Your task to perform on an android device: snooze an email in the gmail app Image 0: 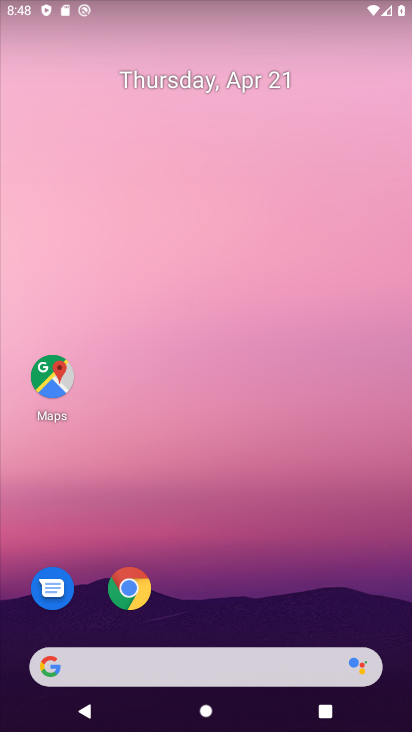
Step 0: drag from (275, 407) to (236, 42)
Your task to perform on an android device: snooze an email in the gmail app Image 1: 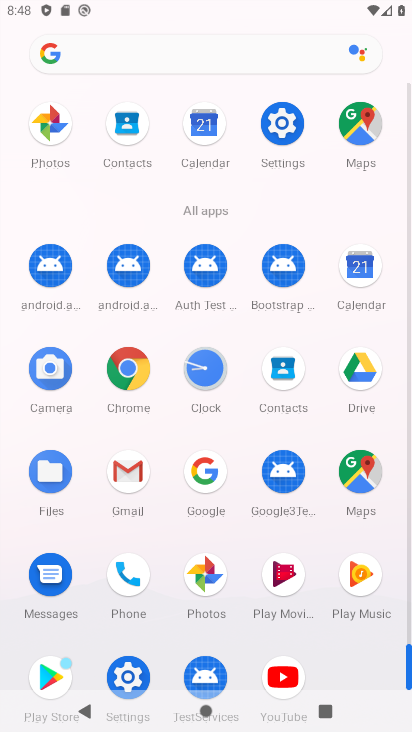
Step 1: drag from (16, 519) to (32, 253)
Your task to perform on an android device: snooze an email in the gmail app Image 2: 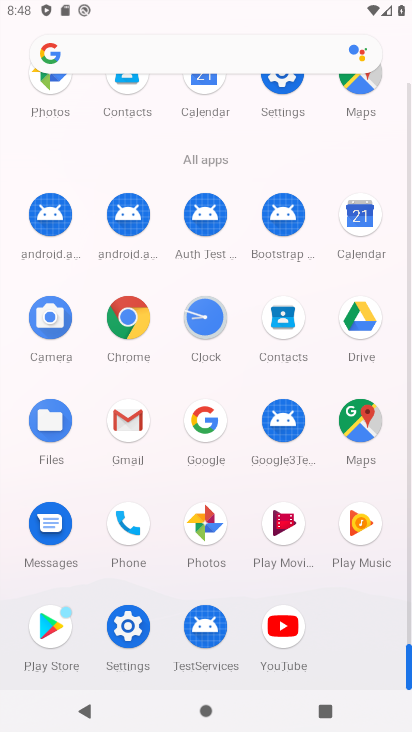
Step 2: click (126, 411)
Your task to perform on an android device: snooze an email in the gmail app Image 3: 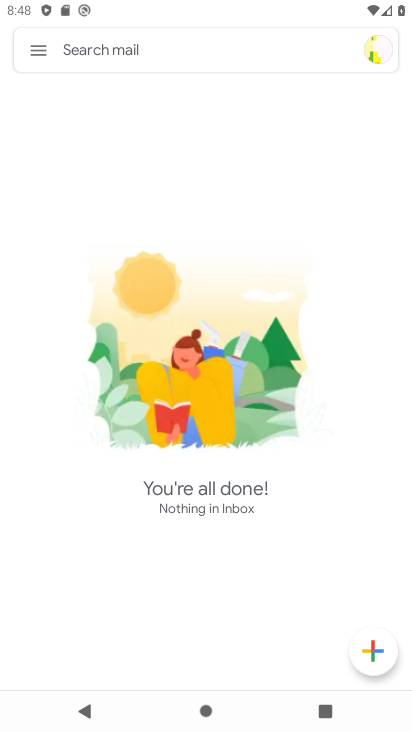
Step 3: click (46, 56)
Your task to perform on an android device: snooze an email in the gmail app Image 4: 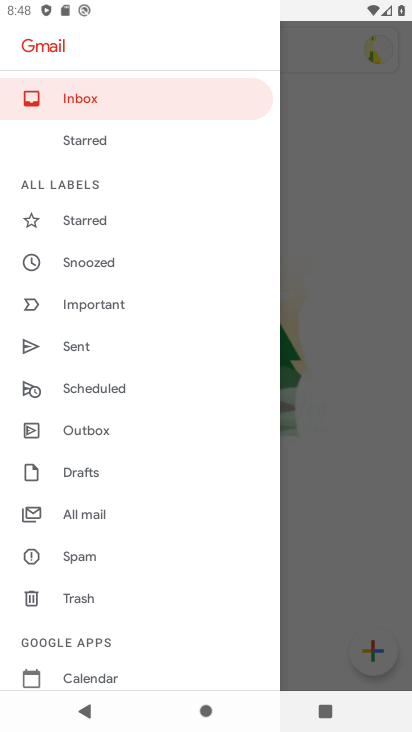
Step 4: click (103, 510)
Your task to perform on an android device: snooze an email in the gmail app Image 5: 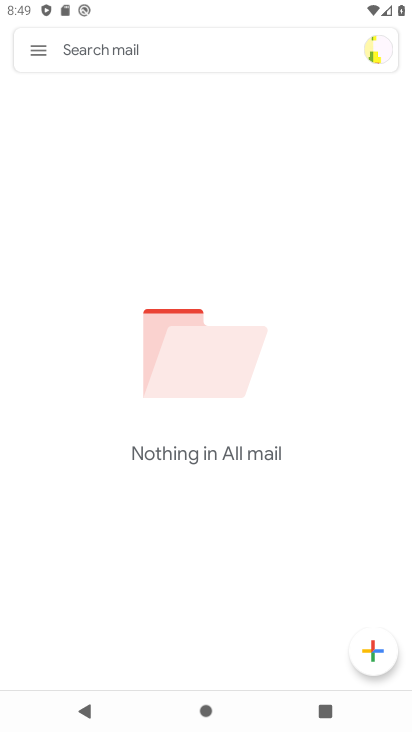
Step 5: click (39, 41)
Your task to perform on an android device: snooze an email in the gmail app Image 6: 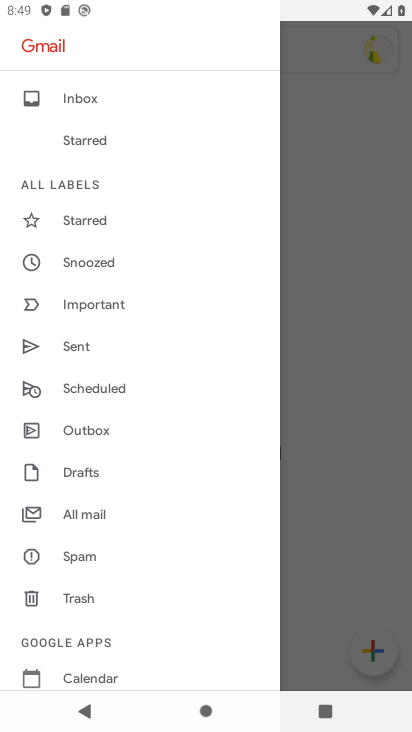
Step 6: click (103, 511)
Your task to perform on an android device: snooze an email in the gmail app Image 7: 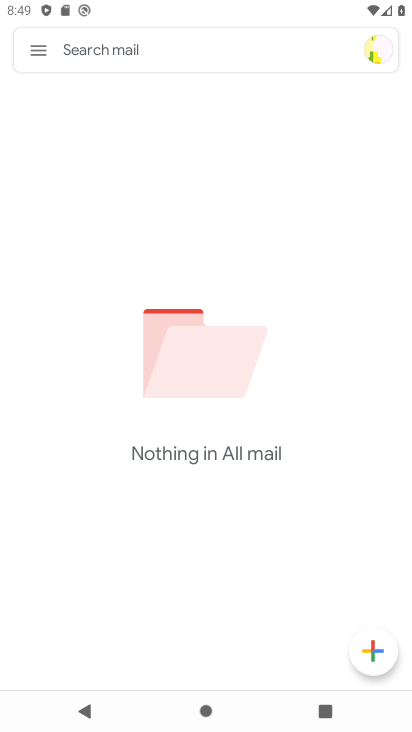
Step 7: task complete